Your task to perform on an android device: Go to eBay Image 0: 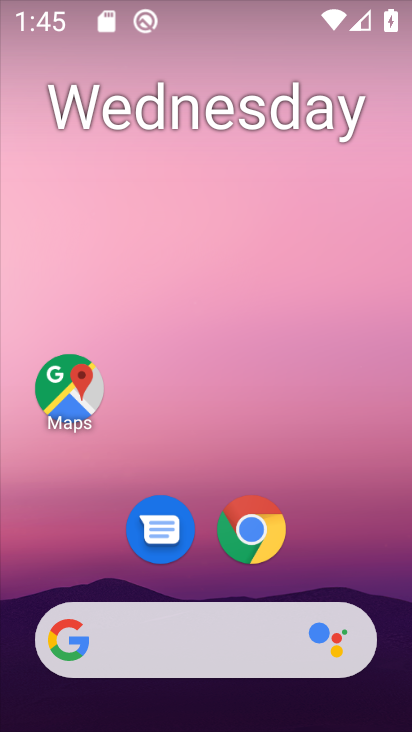
Step 0: click (242, 531)
Your task to perform on an android device: Go to eBay Image 1: 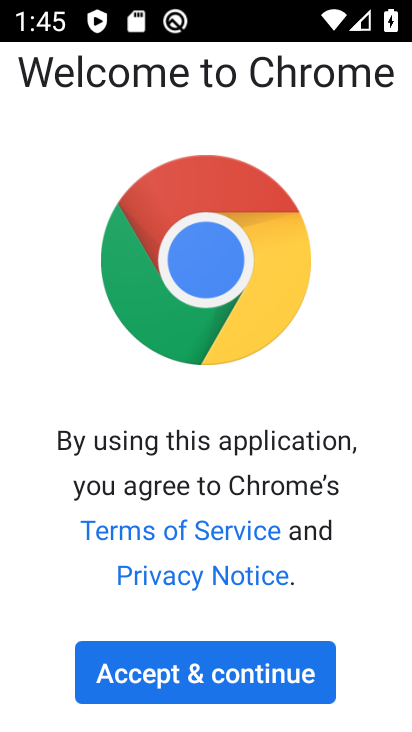
Step 1: click (231, 684)
Your task to perform on an android device: Go to eBay Image 2: 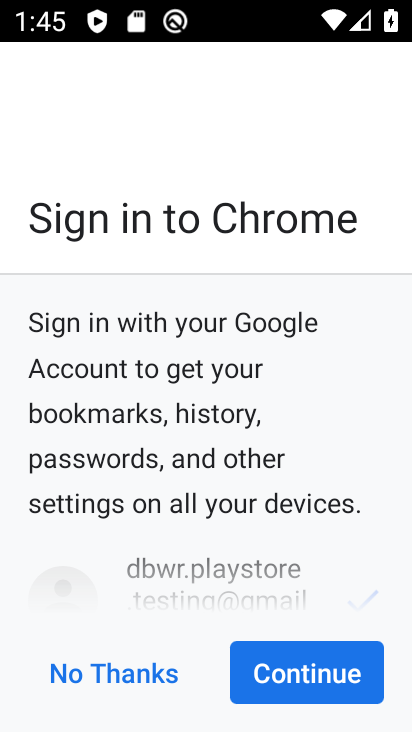
Step 2: click (293, 657)
Your task to perform on an android device: Go to eBay Image 3: 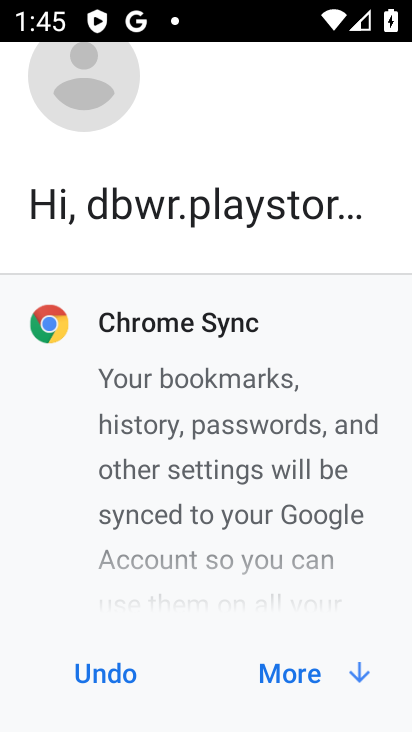
Step 3: click (293, 657)
Your task to perform on an android device: Go to eBay Image 4: 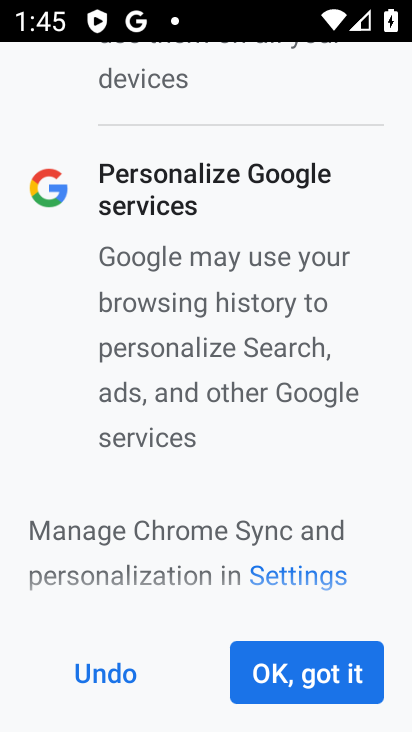
Step 4: click (293, 657)
Your task to perform on an android device: Go to eBay Image 5: 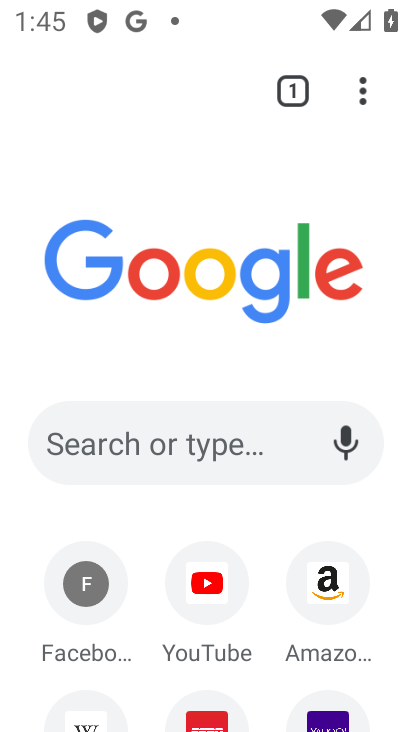
Step 5: click (235, 447)
Your task to perform on an android device: Go to eBay Image 6: 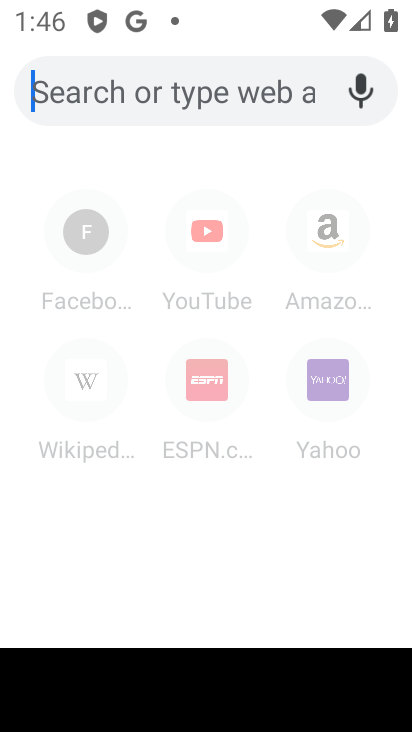
Step 6: type "ebay"
Your task to perform on an android device: Go to eBay Image 7: 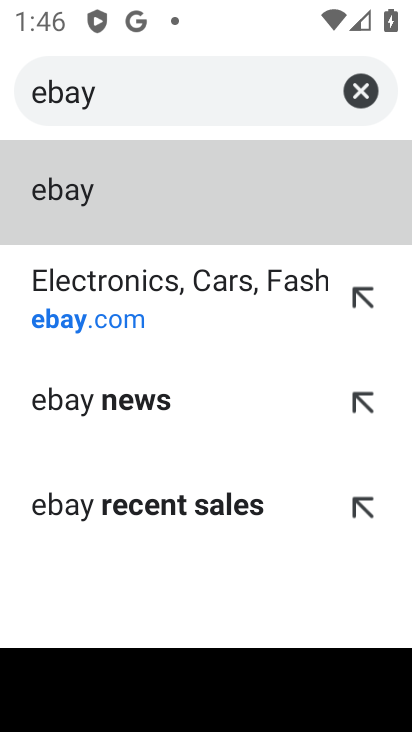
Step 7: click (258, 300)
Your task to perform on an android device: Go to eBay Image 8: 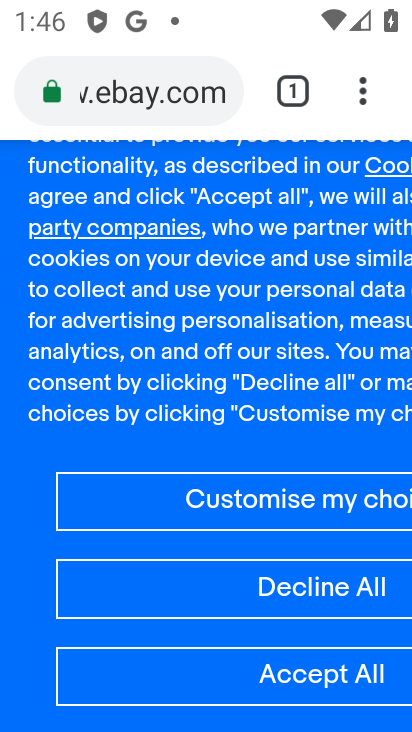
Step 8: task complete